Your task to perform on an android device: toggle show notifications on the lock screen Image 0: 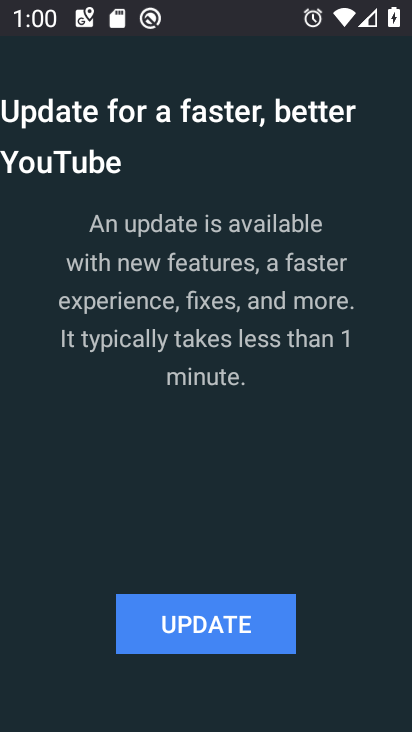
Step 0: press back button
Your task to perform on an android device: toggle show notifications on the lock screen Image 1: 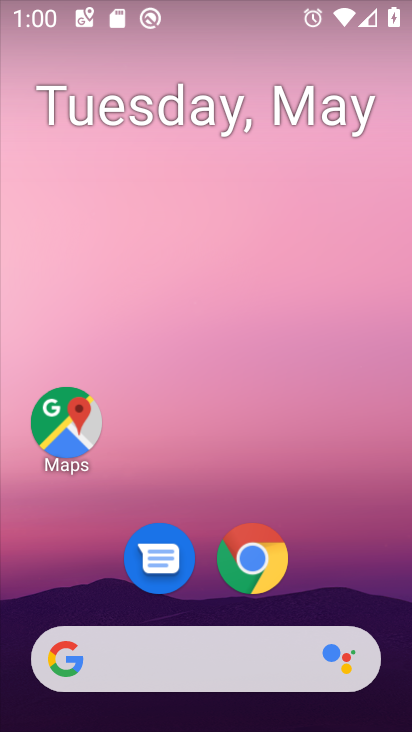
Step 1: drag from (384, 618) to (287, 184)
Your task to perform on an android device: toggle show notifications on the lock screen Image 2: 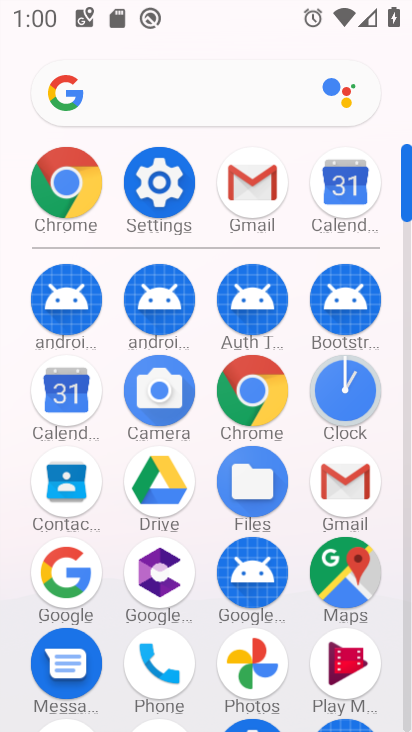
Step 2: click (169, 177)
Your task to perform on an android device: toggle show notifications on the lock screen Image 3: 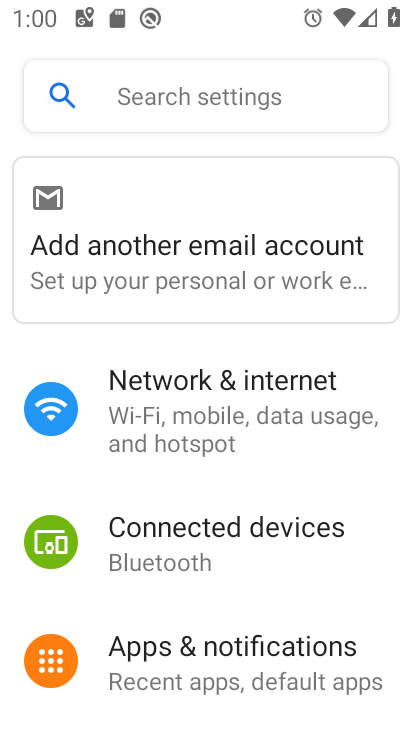
Step 3: click (232, 669)
Your task to perform on an android device: toggle show notifications on the lock screen Image 4: 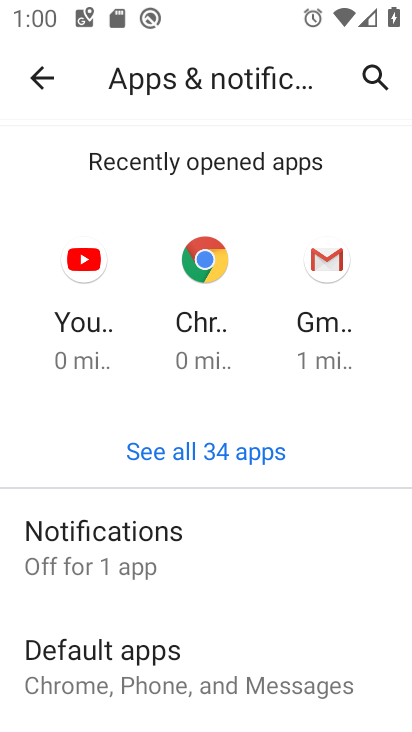
Step 4: click (215, 536)
Your task to perform on an android device: toggle show notifications on the lock screen Image 5: 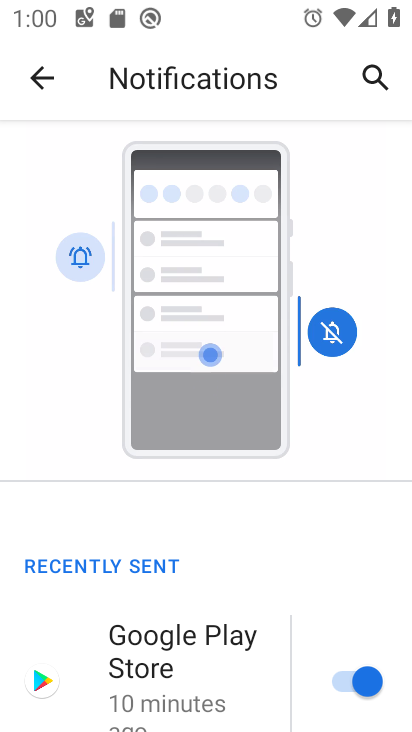
Step 5: drag from (259, 645) to (210, 174)
Your task to perform on an android device: toggle show notifications on the lock screen Image 6: 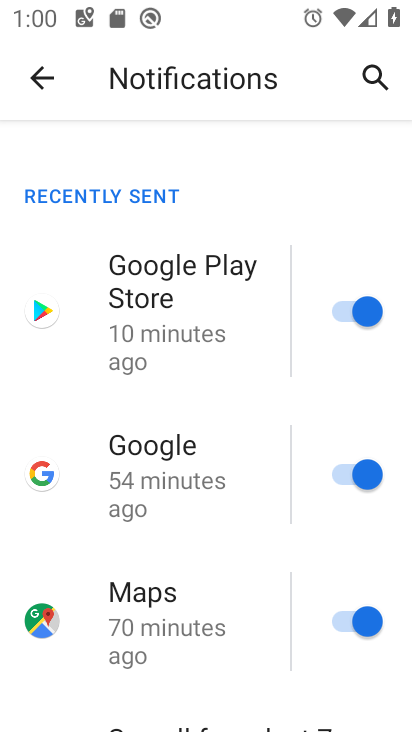
Step 6: drag from (238, 631) to (167, 165)
Your task to perform on an android device: toggle show notifications on the lock screen Image 7: 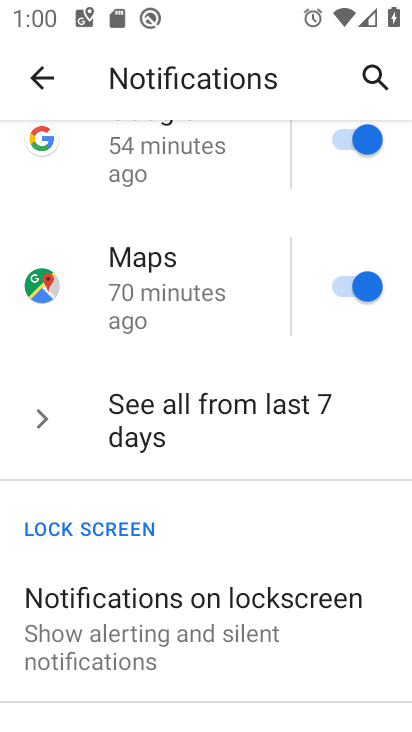
Step 7: drag from (222, 502) to (198, 269)
Your task to perform on an android device: toggle show notifications on the lock screen Image 8: 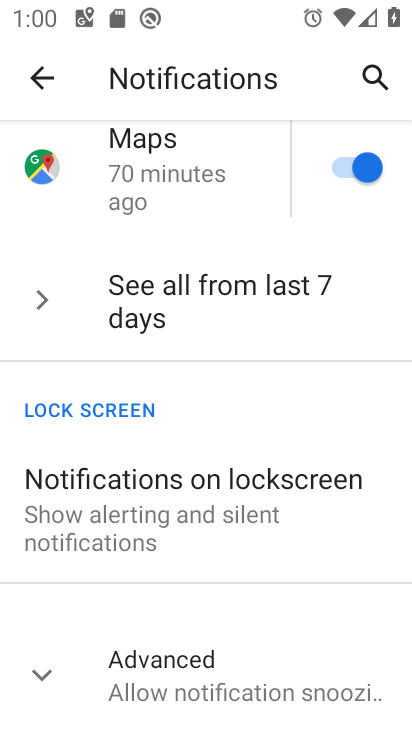
Step 8: click (237, 488)
Your task to perform on an android device: toggle show notifications on the lock screen Image 9: 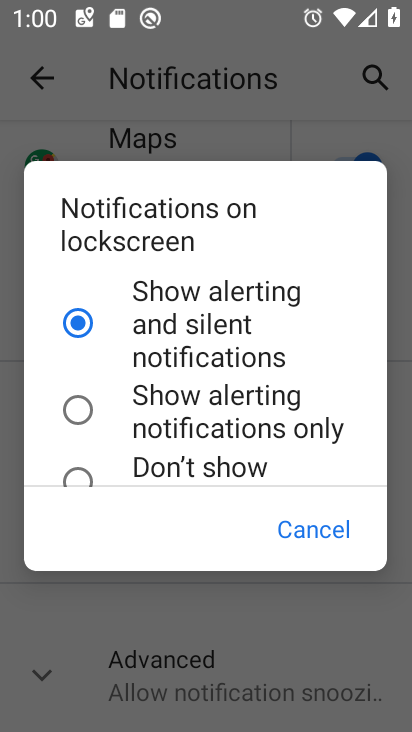
Step 9: click (196, 415)
Your task to perform on an android device: toggle show notifications on the lock screen Image 10: 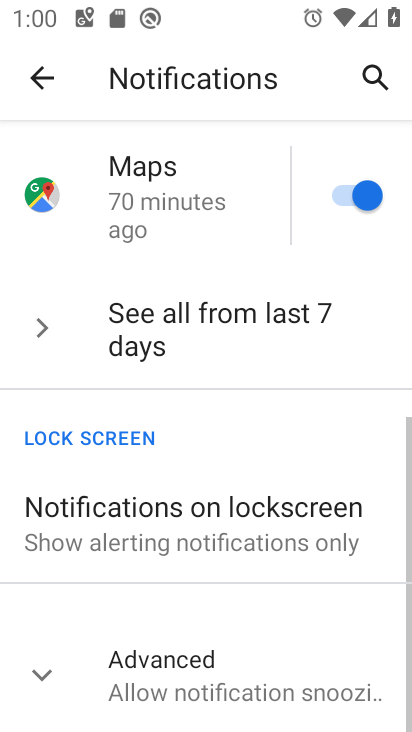
Step 10: task complete